Your task to perform on an android device: turn off location Image 0: 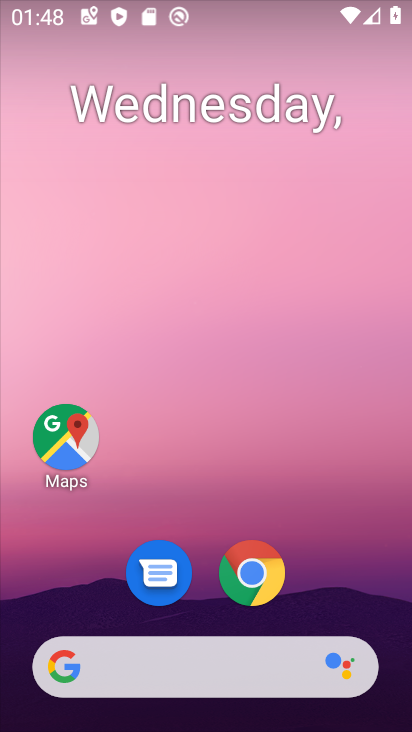
Step 0: drag from (329, 582) to (265, 37)
Your task to perform on an android device: turn off location Image 1: 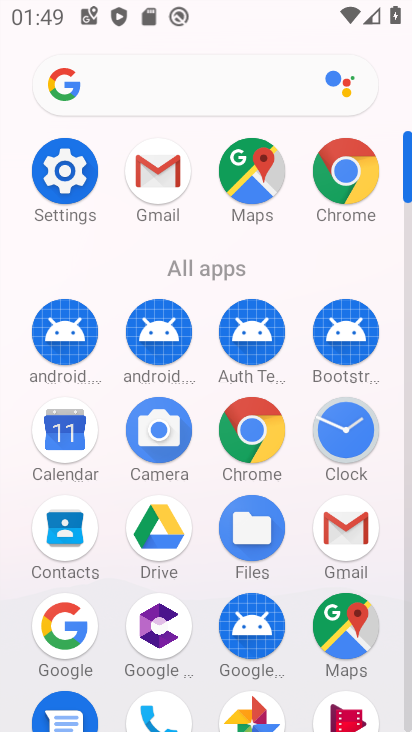
Step 1: click (63, 168)
Your task to perform on an android device: turn off location Image 2: 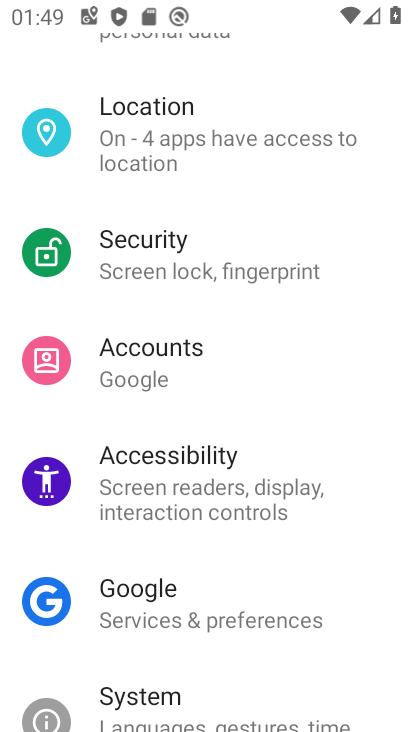
Step 2: drag from (196, 592) to (280, 341)
Your task to perform on an android device: turn off location Image 3: 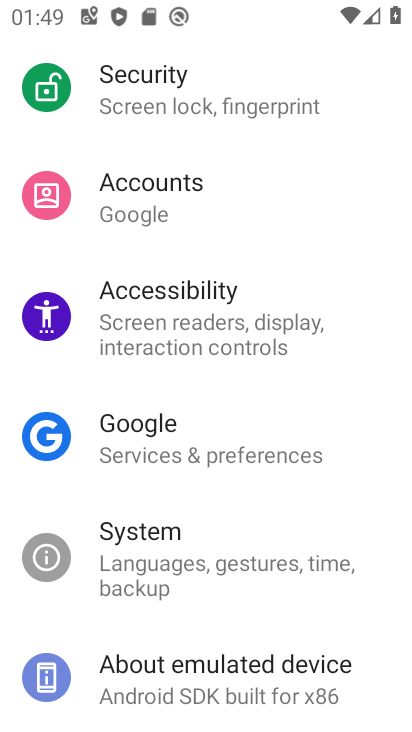
Step 3: drag from (294, 232) to (311, 459)
Your task to perform on an android device: turn off location Image 4: 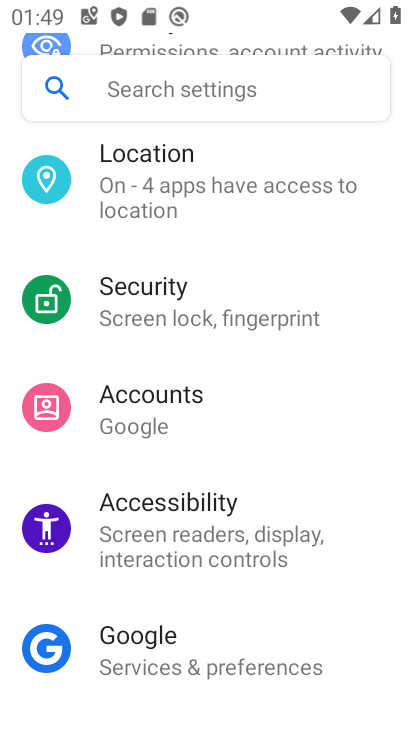
Step 4: click (211, 181)
Your task to perform on an android device: turn off location Image 5: 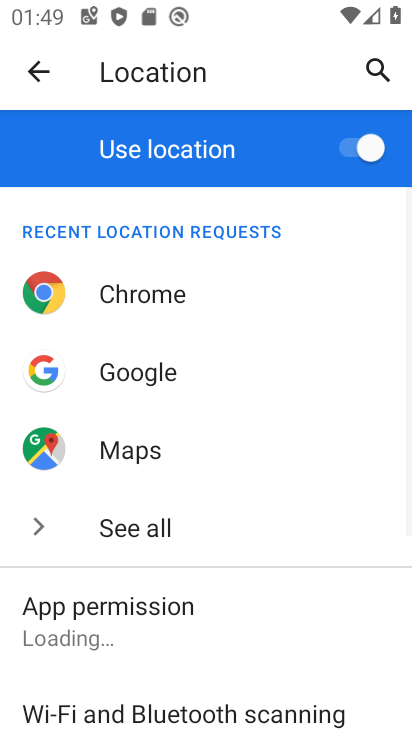
Step 5: click (378, 148)
Your task to perform on an android device: turn off location Image 6: 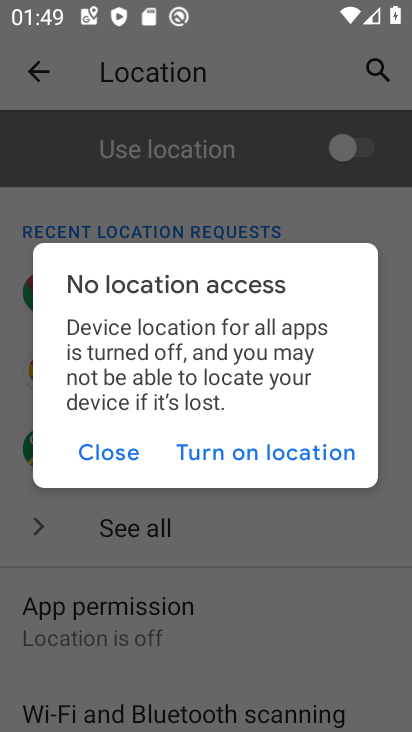
Step 6: click (113, 449)
Your task to perform on an android device: turn off location Image 7: 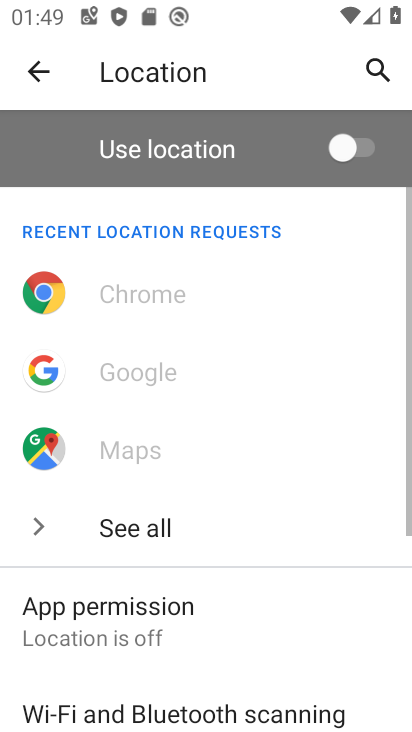
Step 7: task complete